Your task to perform on an android device: toggle pop-ups in chrome Image 0: 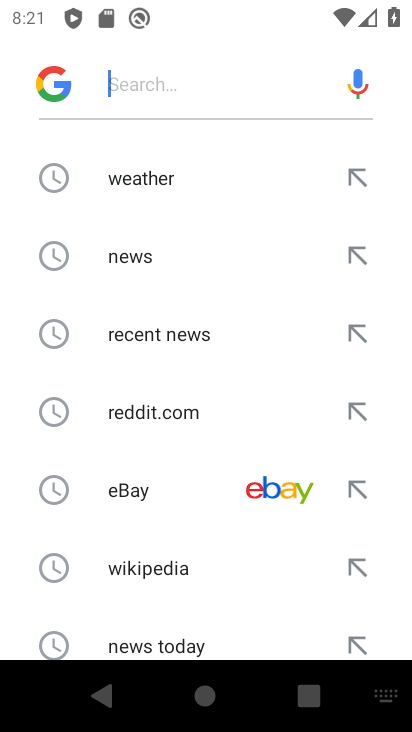
Step 0: press home button
Your task to perform on an android device: toggle pop-ups in chrome Image 1: 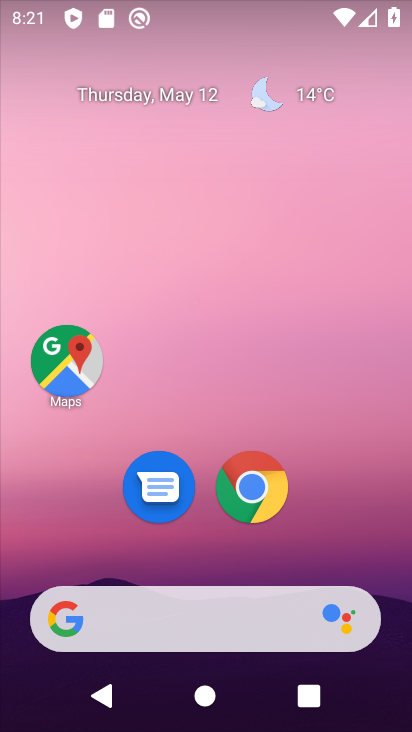
Step 1: click (248, 492)
Your task to perform on an android device: toggle pop-ups in chrome Image 2: 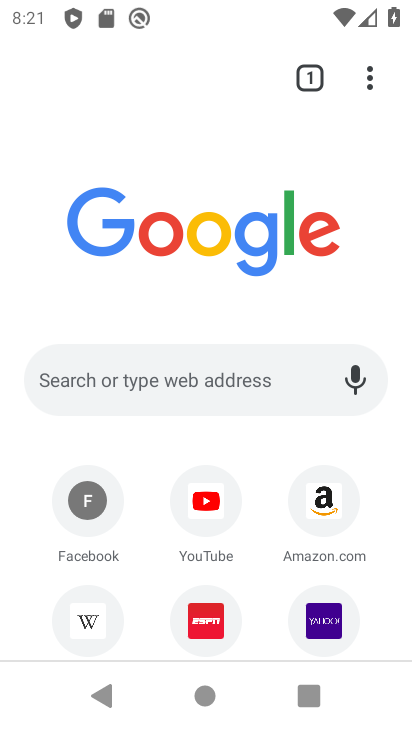
Step 2: click (370, 75)
Your task to perform on an android device: toggle pop-ups in chrome Image 3: 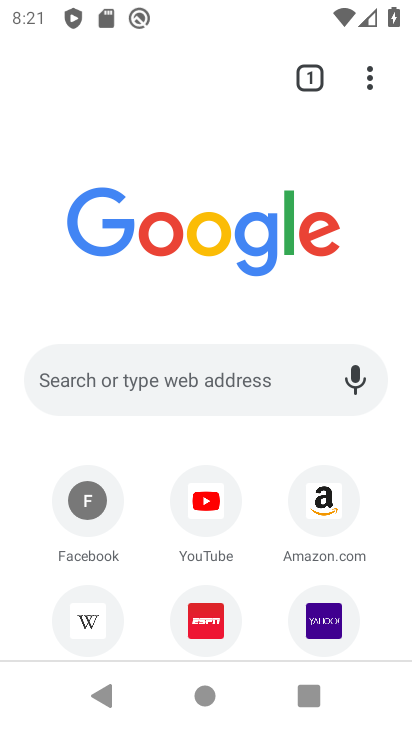
Step 3: click (380, 70)
Your task to perform on an android device: toggle pop-ups in chrome Image 4: 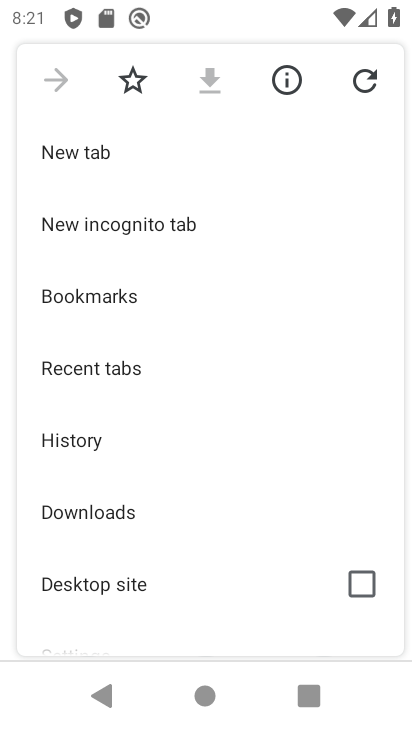
Step 4: drag from (8, 633) to (254, 180)
Your task to perform on an android device: toggle pop-ups in chrome Image 5: 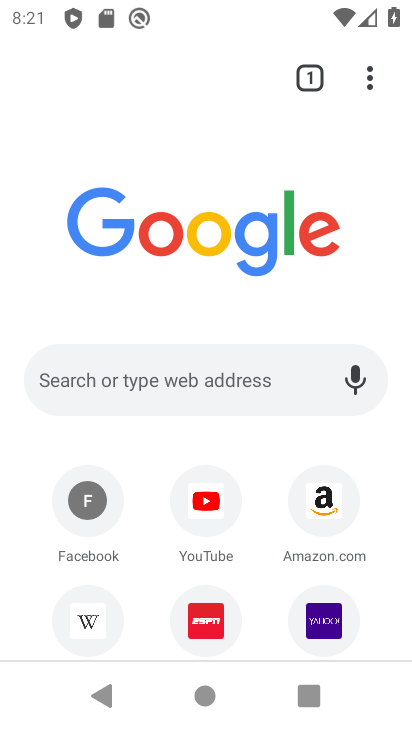
Step 5: click (366, 70)
Your task to perform on an android device: toggle pop-ups in chrome Image 6: 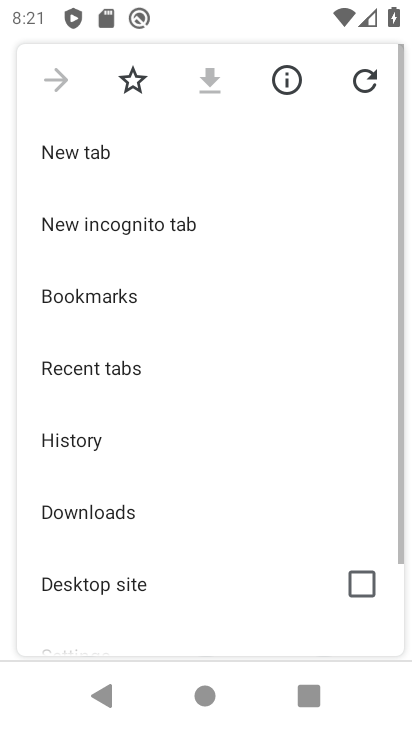
Step 6: drag from (61, 533) to (313, 116)
Your task to perform on an android device: toggle pop-ups in chrome Image 7: 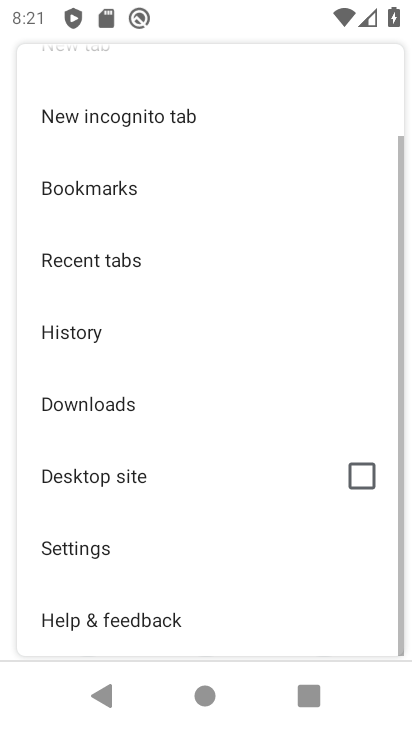
Step 7: click (129, 556)
Your task to perform on an android device: toggle pop-ups in chrome Image 8: 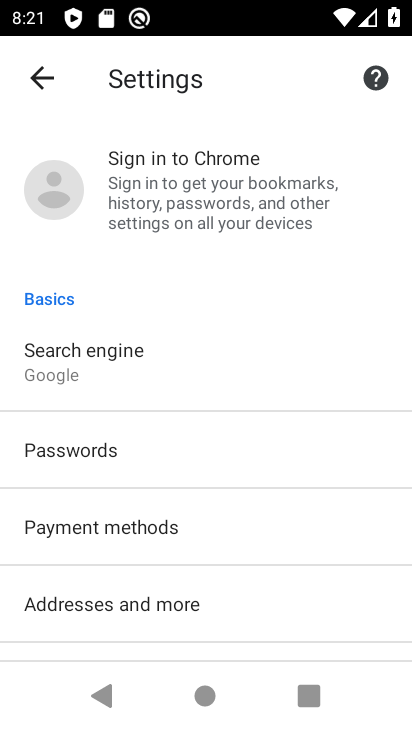
Step 8: drag from (60, 560) to (266, 204)
Your task to perform on an android device: toggle pop-ups in chrome Image 9: 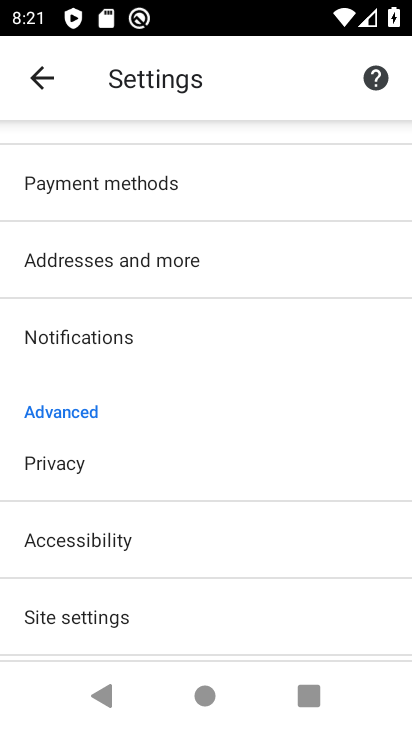
Step 9: click (87, 609)
Your task to perform on an android device: toggle pop-ups in chrome Image 10: 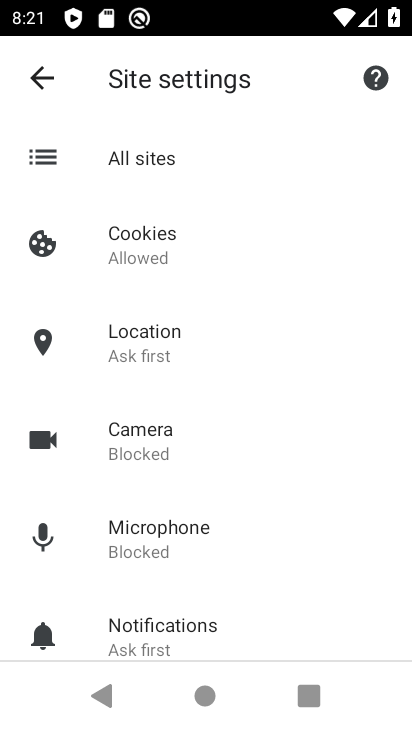
Step 10: drag from (37, 582) to (285, 191)
Your task to perform on an android device: toggle pop-ups in chrome Image 11: 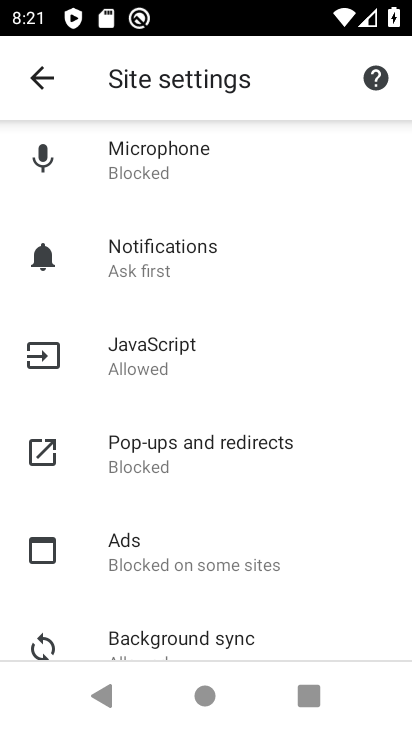
Step 11: click (168, 437)
Your task to perform on an android device: toggle pop-ups in chrome Image 12: 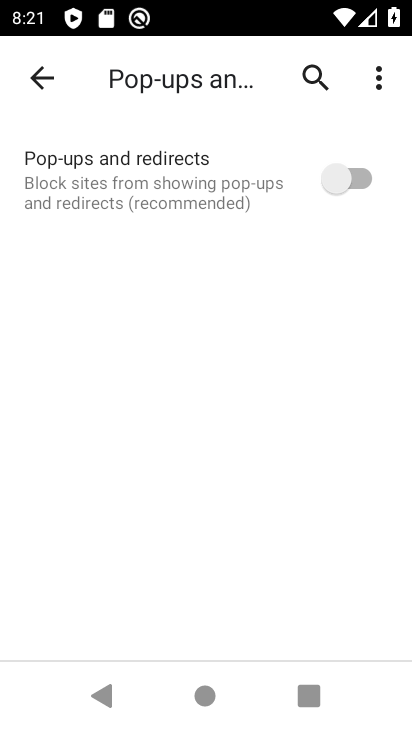
Step 12: click (346, 177)
Your task to perform on an android device: toggle pop-ups in chrome Image 13: 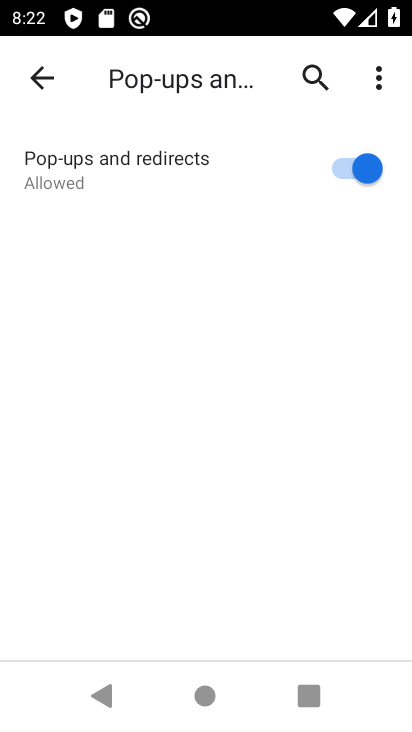
Step 13: task complete